Your task to perform on an android device: turn on javascript in the chrome app Image 0: 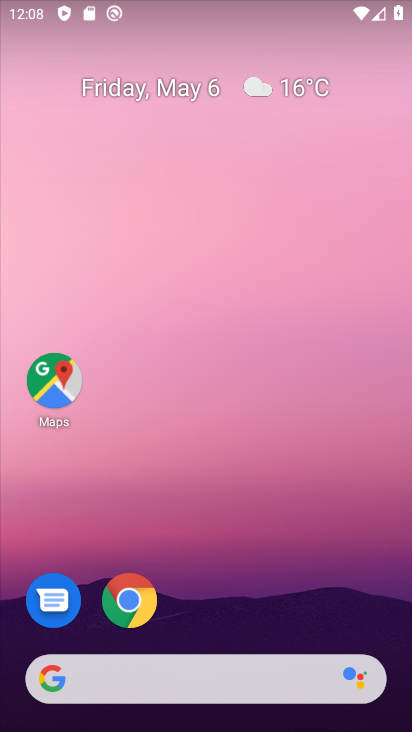
Step 0: click (135, 588)
Your task to perform on an android device: turn on javascript in the chrome app Image 1: 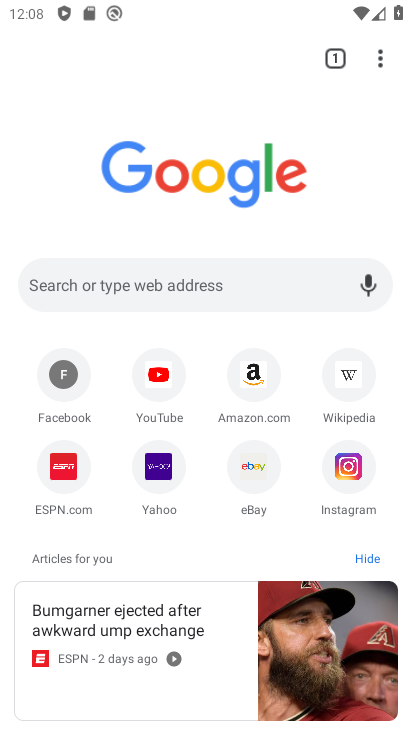
Step 1: click (380, 55)
Your task to perform on an android device: turn on javascript in the chrome app Image 2: 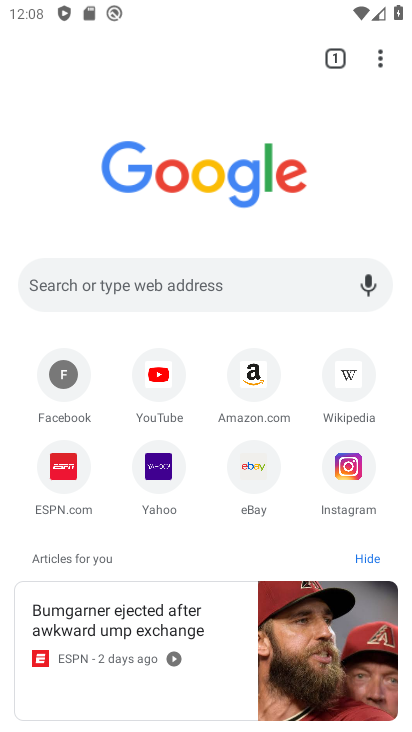
Step 2: click (381, 58)
Your task to perform on an android device: turn on javascript in the chrome app Image 3: 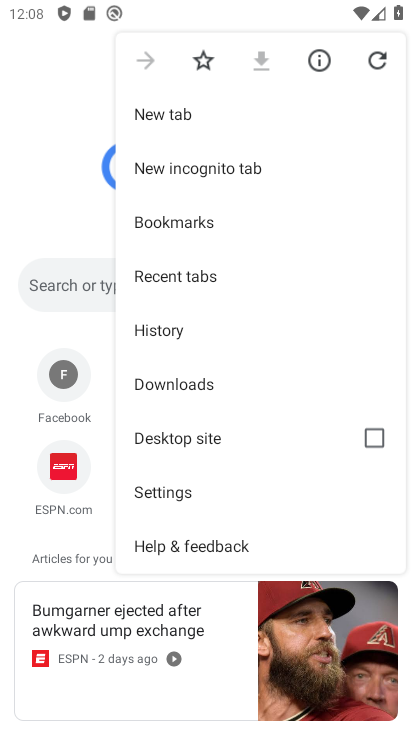
Step 3: click (161, 487)
Your task to perform on an android device: turn on javascript in the chrome app Image 4: 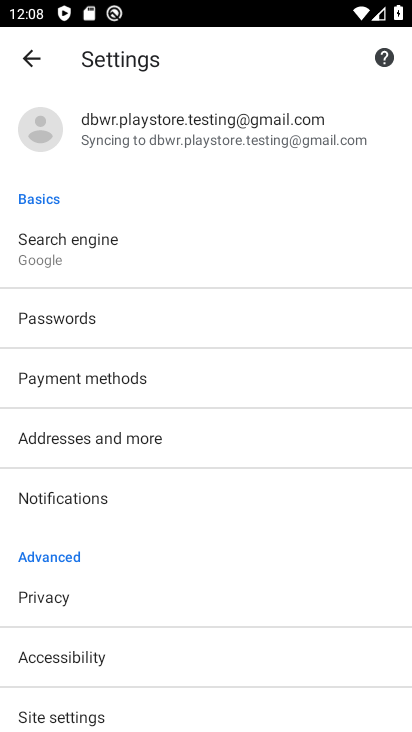
Step 4: click (84, 708)
Your task to perform on an android device: turn on javascript in the chrome app Image 5: 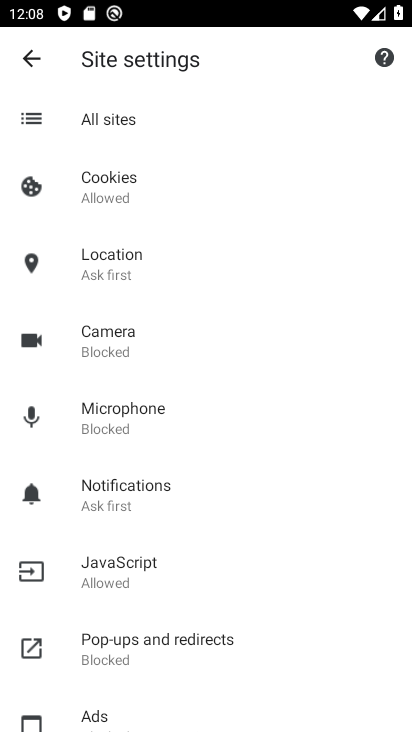
Step 5: click (107, 573)
Your task to perform on an android device: turn on javascript in the chrome app Image 6: 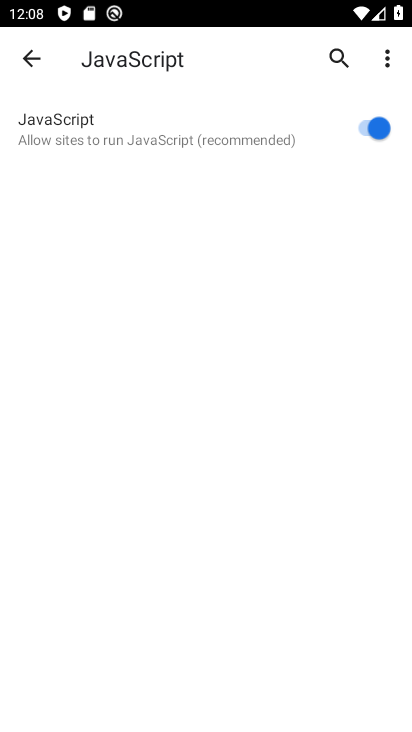
Step 6: task complete